Your task to perform on an android device: turn off improve location accuracy Image 0: 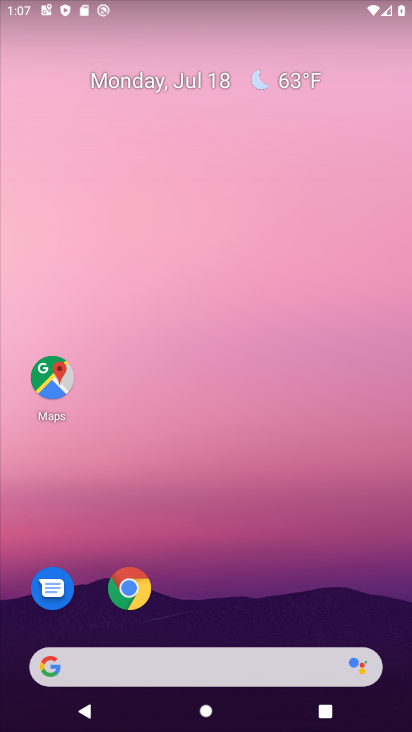
Step 0: drag from (267, 592) to (186, 230)
Your task to perform on an android device: turn off improve location accuracy Image 1: 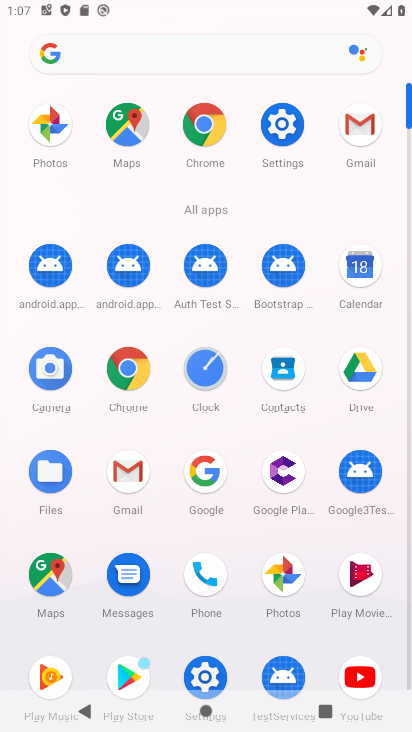
Step 1: click (290, 115)
Your task to perform on an android device: turn off improve location accuracy Image 2: 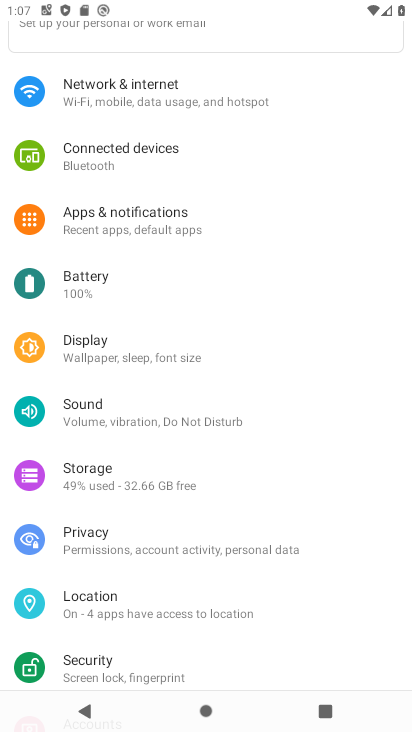
Step 2: click (87, 598)
Your task to perform on an android device: turn off improve location accuracy Image 3: 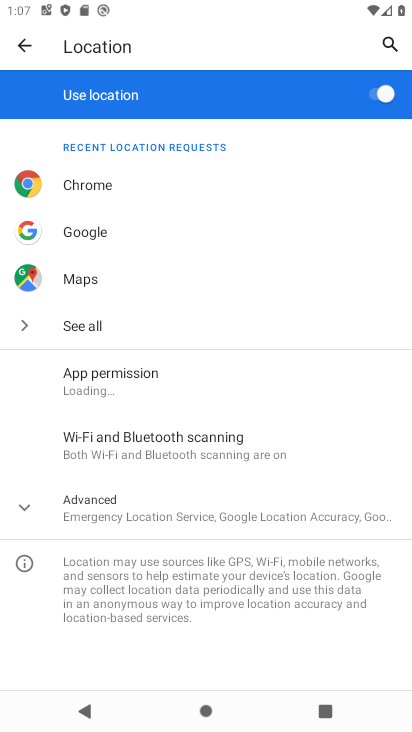
Step 3: click (31, 503)
Your task to perform on an android device: turn off improve location accuracy Image 4: 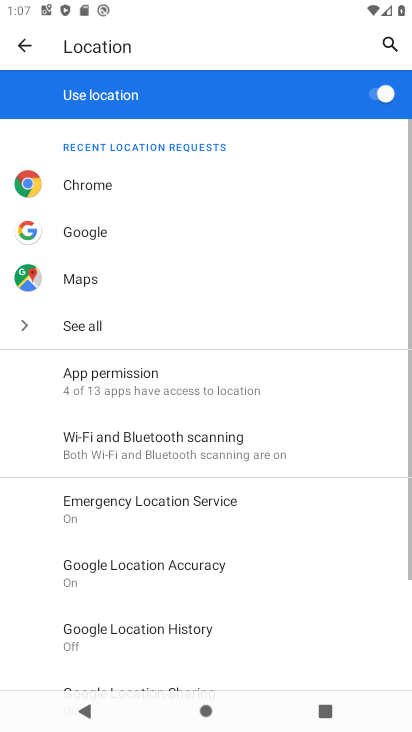
Step 4: click (140, 569)
Your task to perform on an android device: turn off improve location accuracy Image 5: 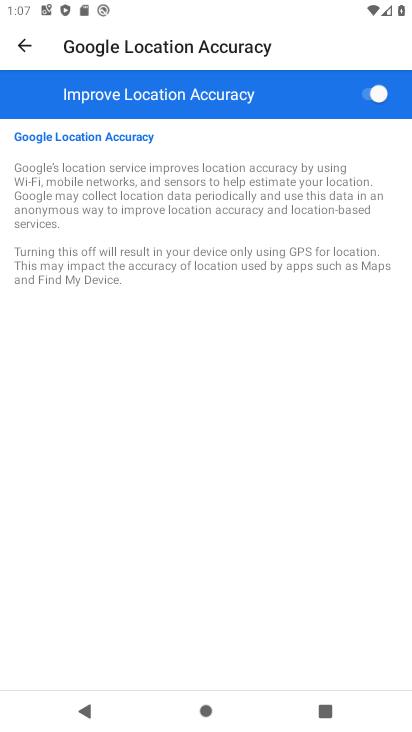
Step 5: click (371, 89)
Your task to perform on an android device: turn off improve location accuracy Image 6: 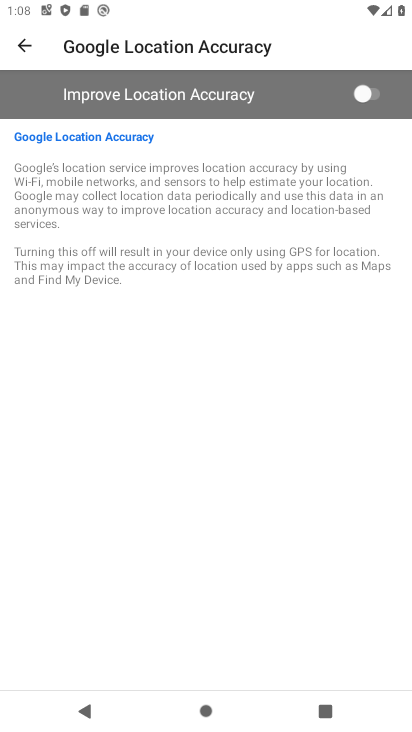
Step 6: task complete